Your task to perform on an android device: Open the web browser Image 0: 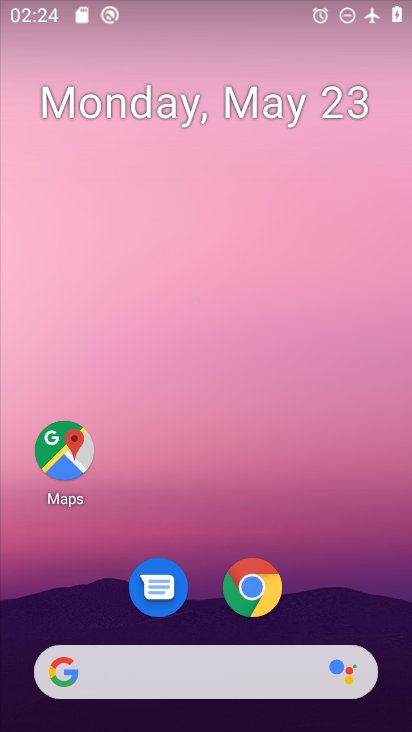
Step 0: click (256, 597)
Your task to perform on an android device: Open the web browser Image 1: 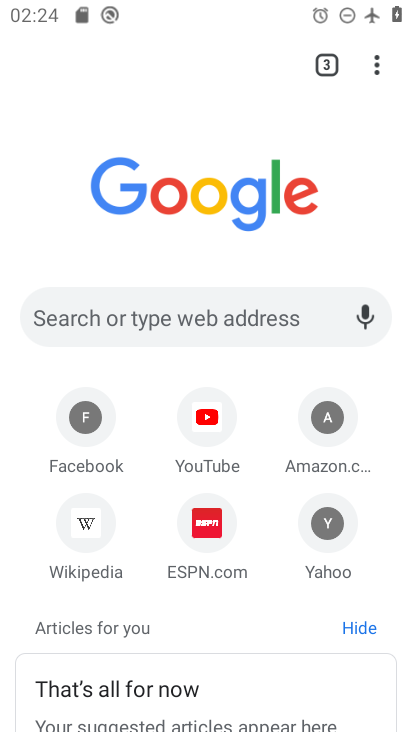
Step 1: task complete